Your task to perform on an android device: See recent photos Image 0: 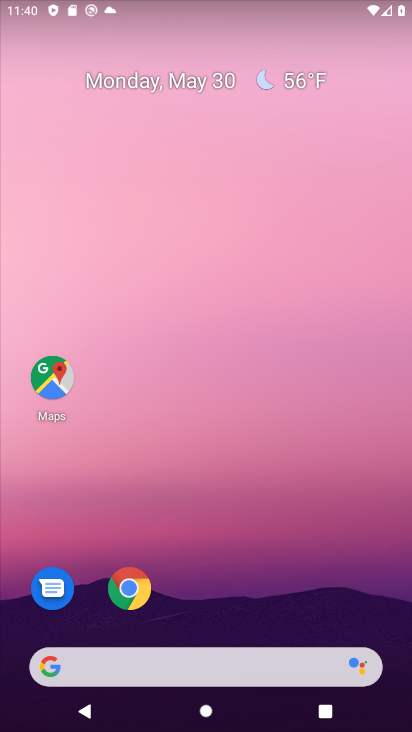
Step 0: drag from (256, 553) to (253, 67)
Your task to perform on an android device: See recent photos Image 1: 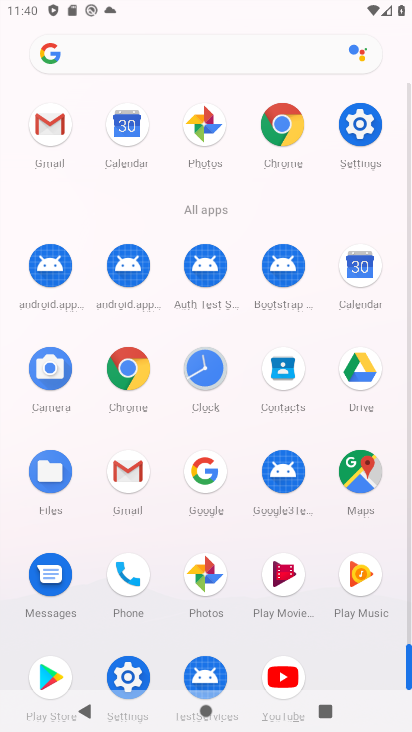
Step 1: click (199, 588)
Your task to perform on an android device: See recent photos Image 2: 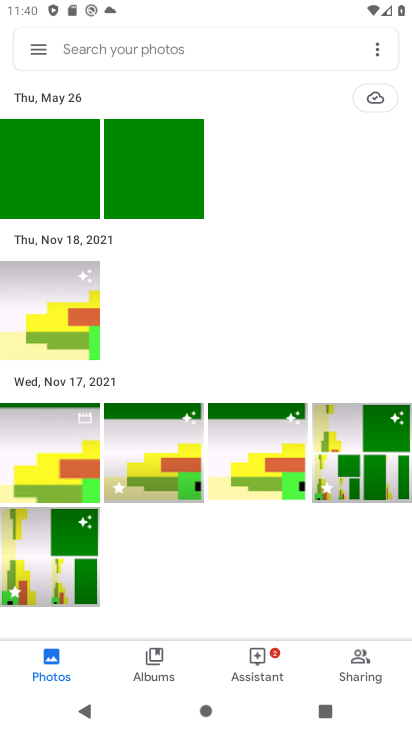
Step 2: task complete